Your task to perform on an android device: turn off data saver in the chrome app Image 0: 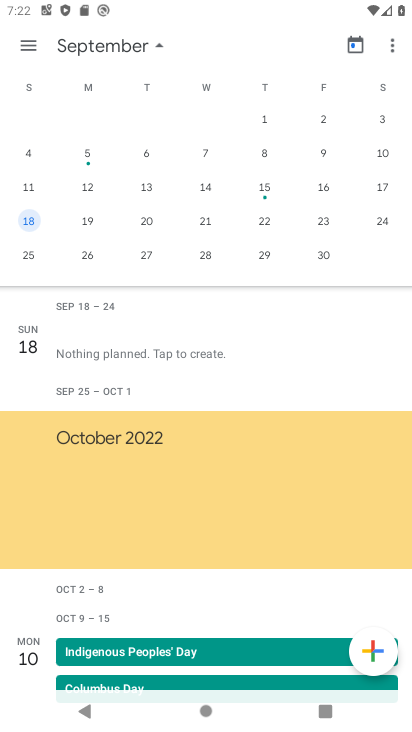
Step 0: press home button
Your task to perform on an android device: turn off data saver in the chrome app Image 1: 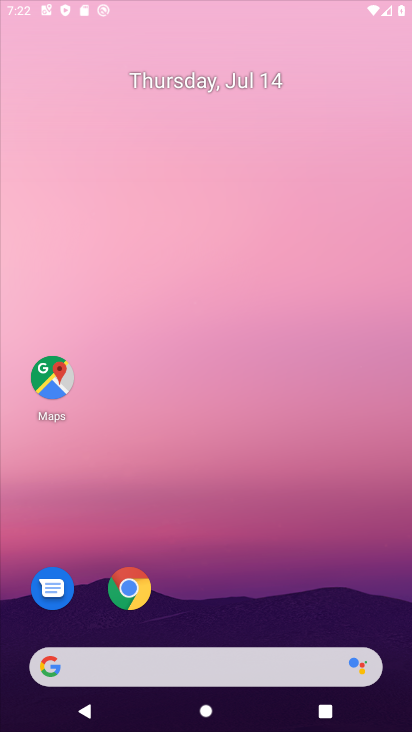
Step 1: drag from (405, 677) to (291, 26)
Your task to perform on an android device: turn off data saver in the chrome app Image 2: 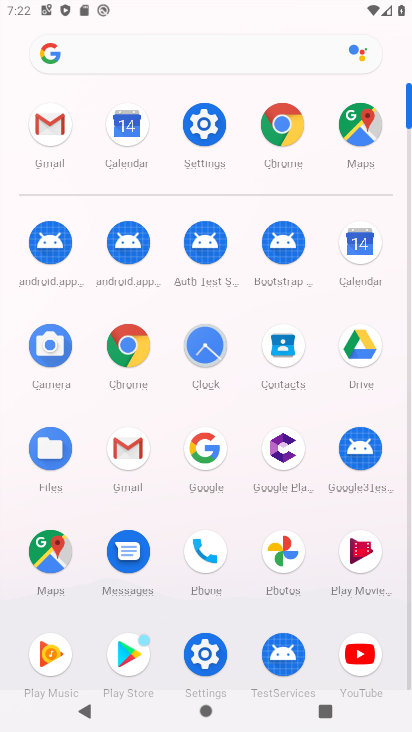
Step 2: click (120, 339)
Your task to perform on an android device: turn off data saver in the chrome app Image 3: 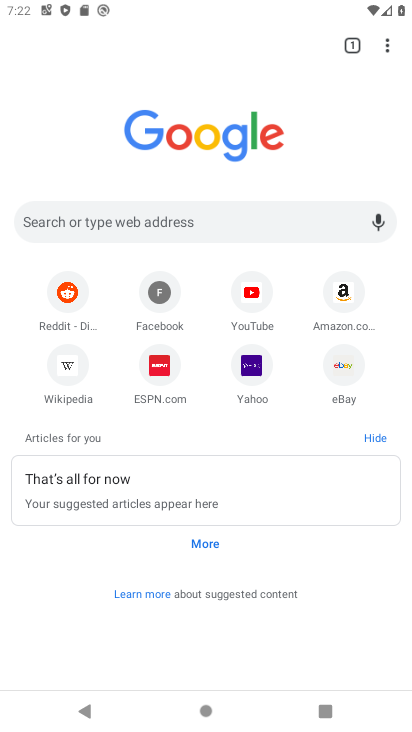
Step 3: click (390, 48)
Your task to perform on an android device: turn off data saver in the chrome app Image 4: 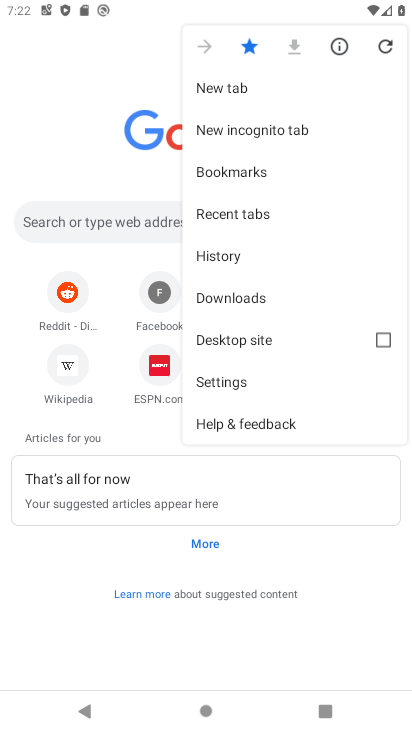
Step 4: click (225, 380)
Your task to perform on an android device: turn off data saver in the chrome app Image 5: 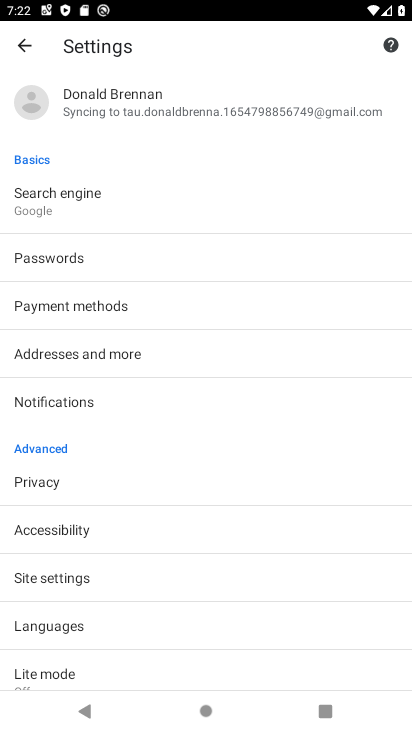
Step 5: click (84, 676)
Your task to perform on an android device: turn off data saver in the chrome app Image 6: 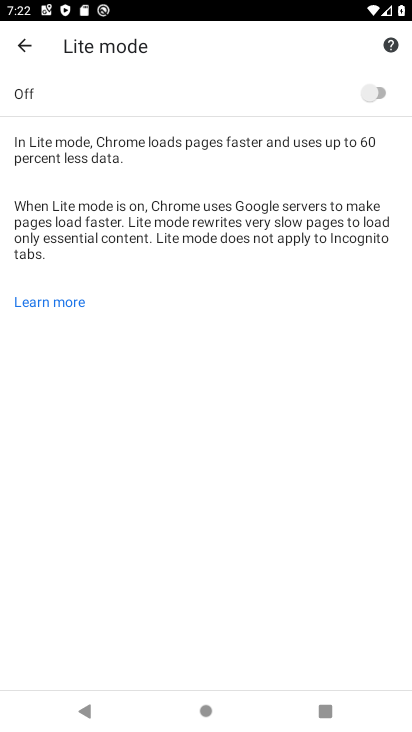
Step 6: task complete